Your task to perform on an android device: toggle data saver in the chrome app Image 0: 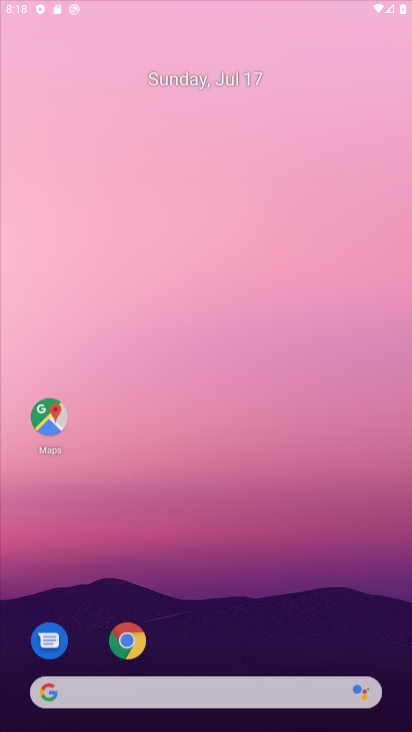
Step 0: click (128, 641)
Your task to perform on an android device: toggle data saver in the chrome app Image 1: 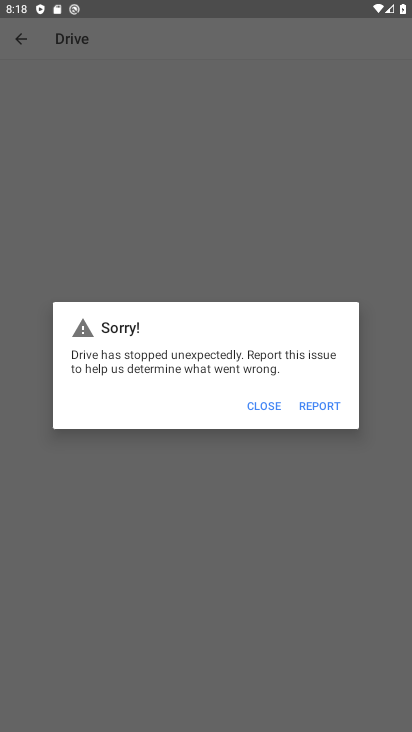
Step 1: click (125, 643)
Your task to perform on an android device: toggle data saver in the chrome app Image 2: 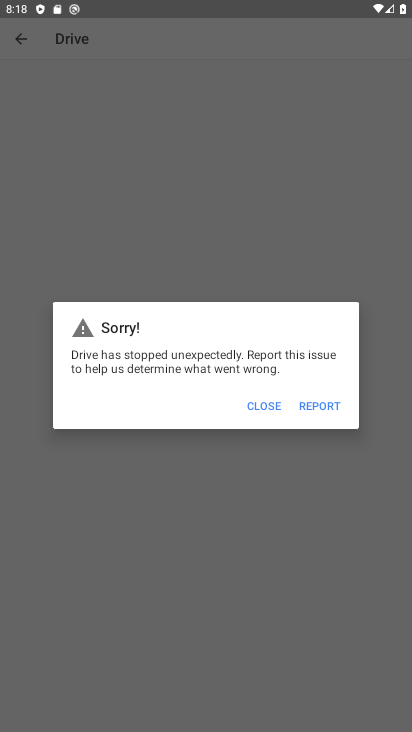
Step 2: press home button
Your task to perform on an android device: toggle data saver in the chrome app Image 3: 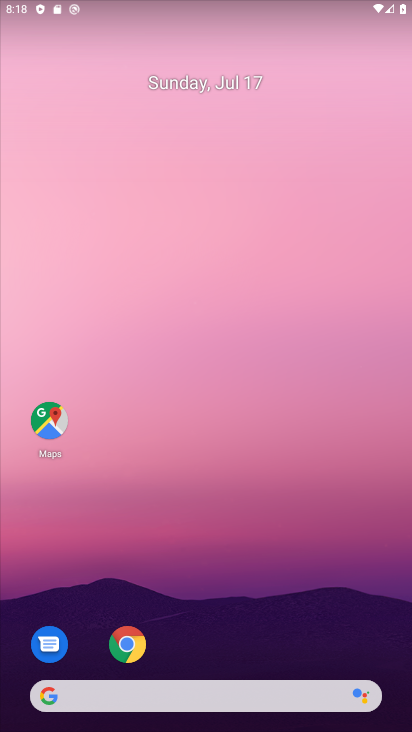
Step 3: click (126, 652)
Your task to perform on an android device: toggle data saver in the chrome app Image 4: 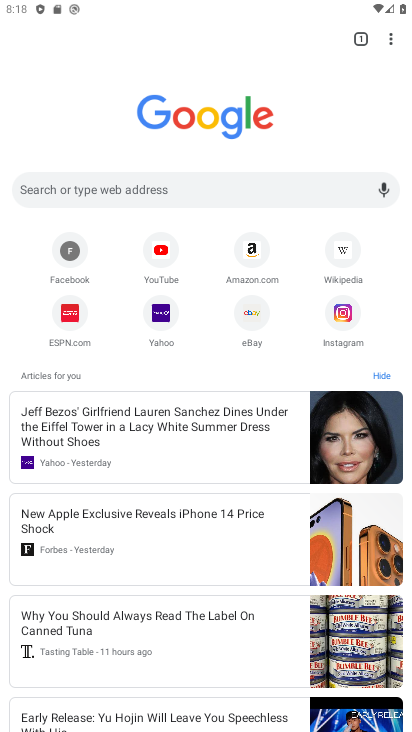
Step 4: click (387, 36)
Your task to perform on an android device: toggle data saver in the chrome app Image 5: 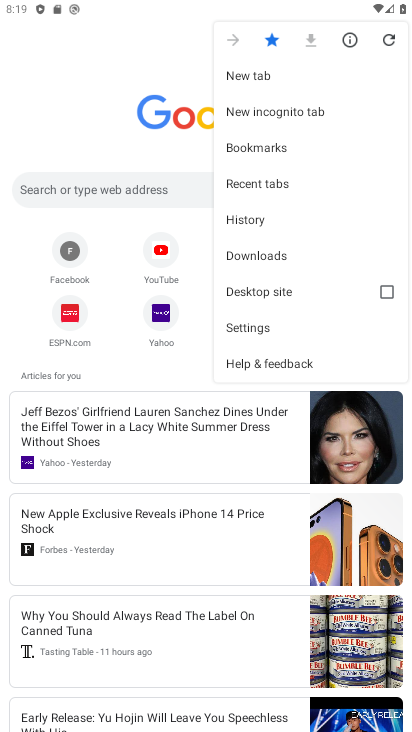
Step 5: click (258, 322)
Your task to perform on an android device: toggle data saver in the chrome app Image 6: 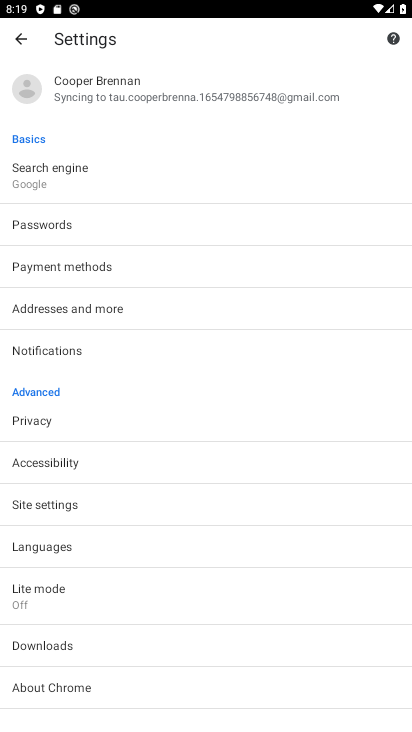
Step 6: click (31, 593)
Your task to perform on an android device: toggle data saver in the chrome app Image 7: 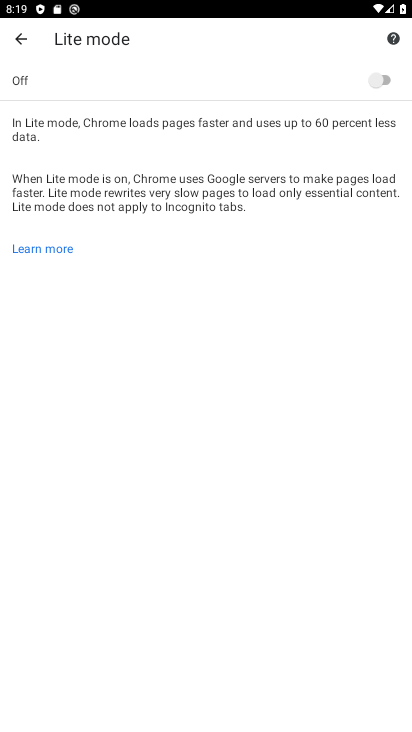
Step 7: click (384, 85)
Your task to perform on an android device: toggle data saver in the chrome app Image 8: 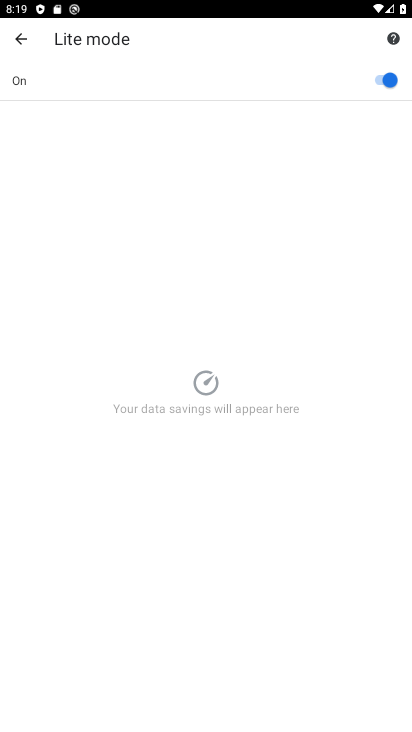
Step 8: task complete